Your task to perform on an android device: Turn off the flashlight Image 0: 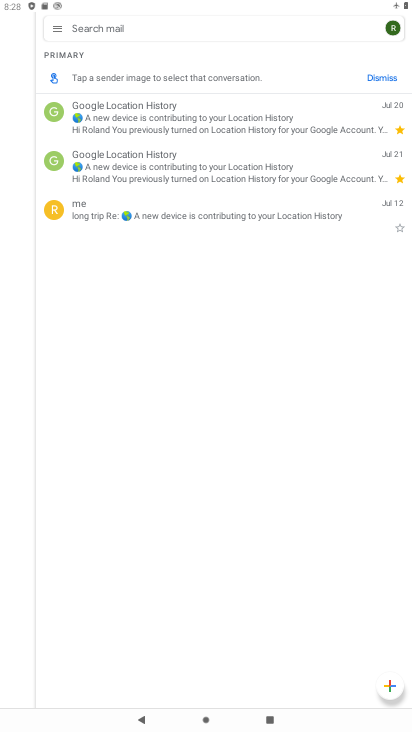
Step 0: drag from (247, 424) to (260, 240)
Your task to perform on an android device: Turn off the flashlight Image 1: 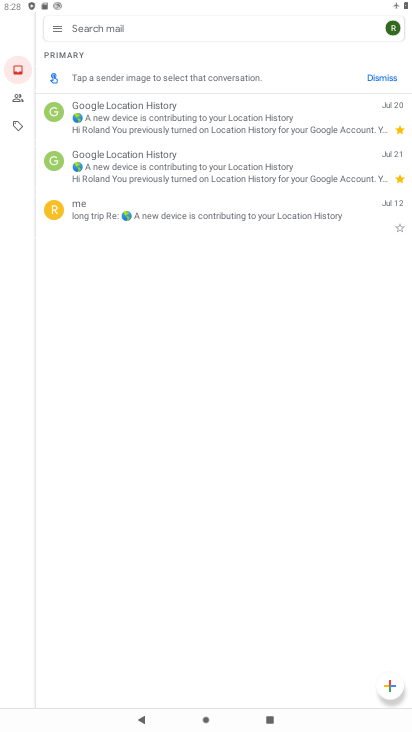
Step 1: press home button
Your task to perform on an android device: Turn off the flashlight Image 2: 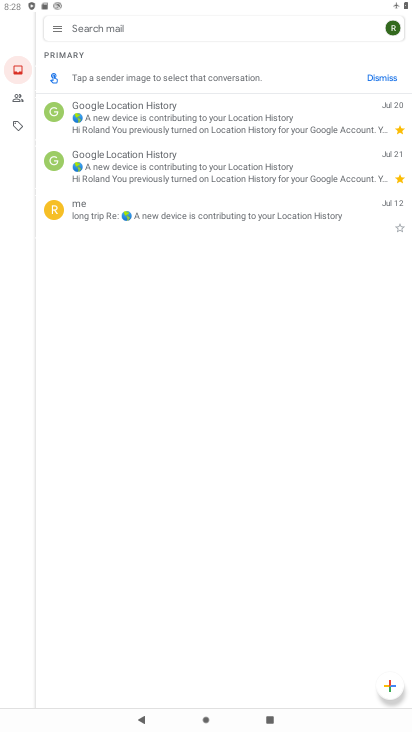
Step 2: press home button
Your task to perform on an android device: Turn off the flashlight Image 3: 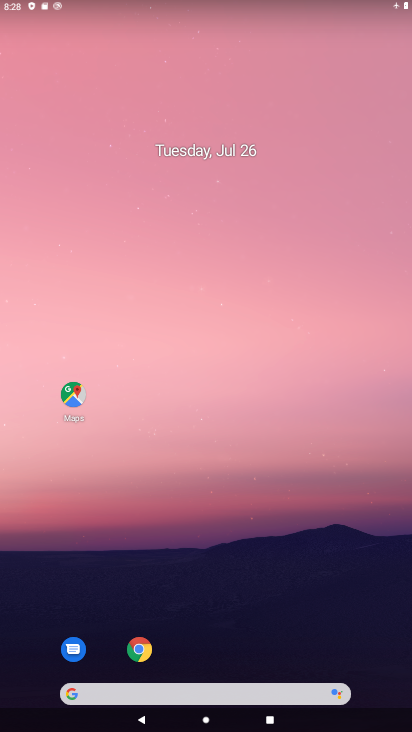
Step 3: drag from (236, 581) to (248, 212)
Your task to perform on an android device: Turn off the flashlight Image 4: 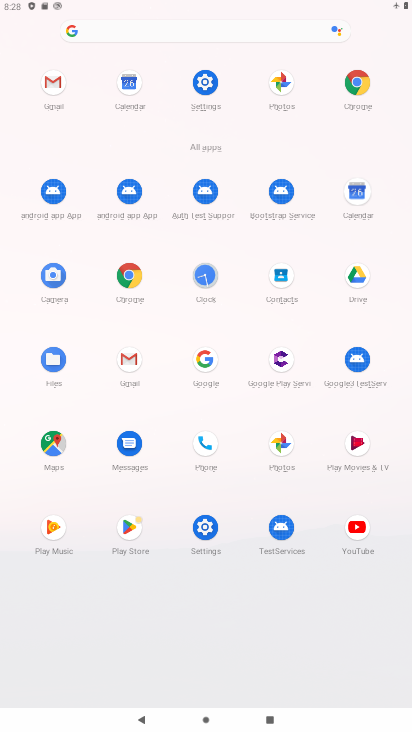
Step 4: click (207, 88)
Your task to perform on an android device: Turn off the flashlight Image 5: 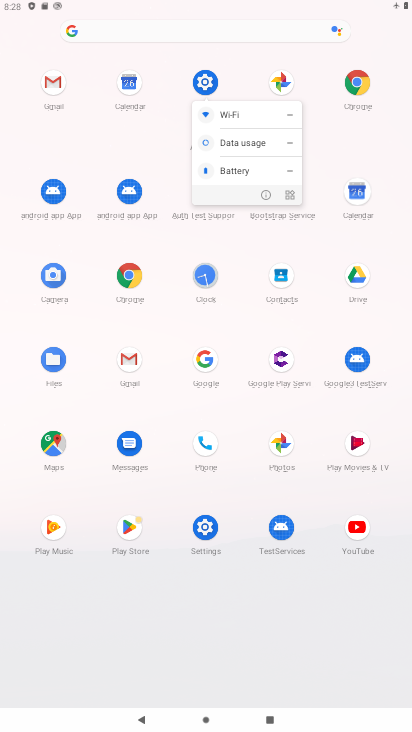
Step 5: click (263, 193)
Your task to perform on an android device: Turn off the flashlight Image 6: 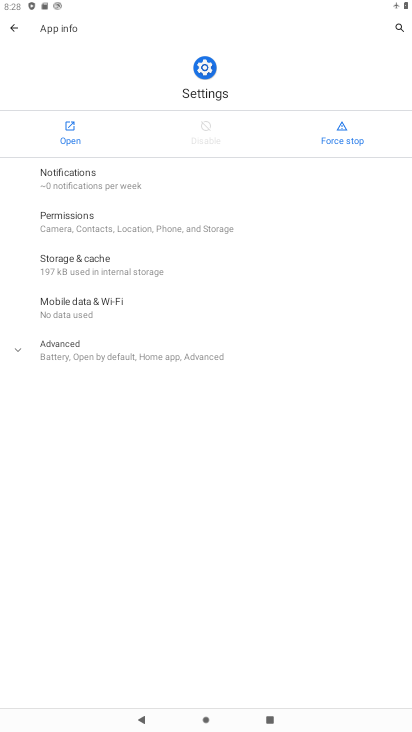
Step 6: click (56, 110)
Your task to perform on an android device: Turn off the flashlight Image 7: 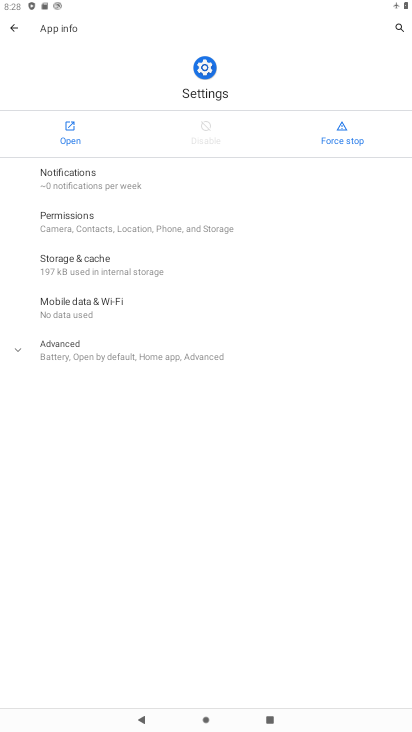
Step 7: click (69, 132)
Your task to perform on an android device: Turn off the flashlight Image 8: 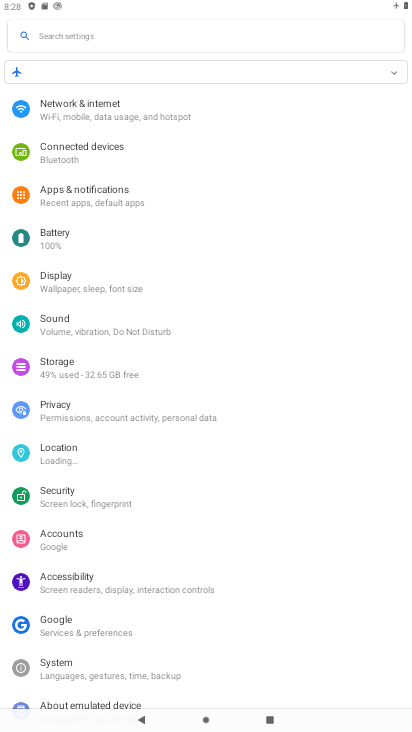
Step 8: click (110, 26)
Your task to perform on an android device: Turn off the flashlight Image 9: 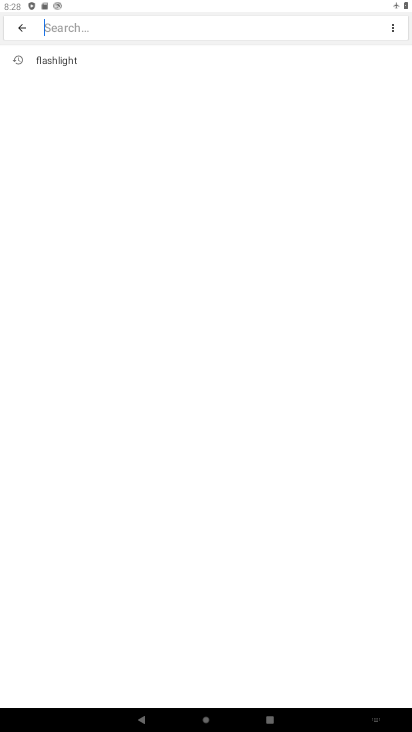
Step 9: type "flashlight"
Your task to perform on an android device: Turn off the flashlight Image 10: 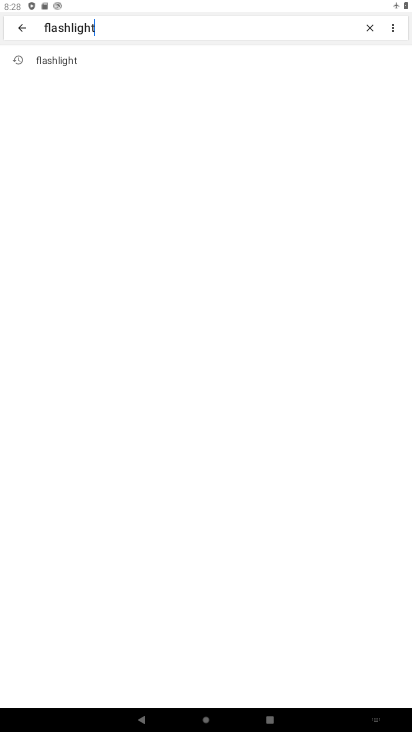
Step 10: type ""
Your task to perform on an android device: Turn off the flashlight Image 11: 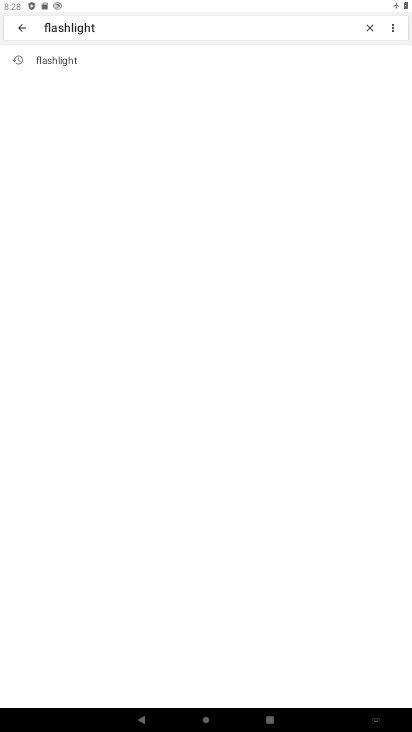
Step 11: click (48, 63)
Your task to perform on an android device: Turn off the flashlight Image 12: 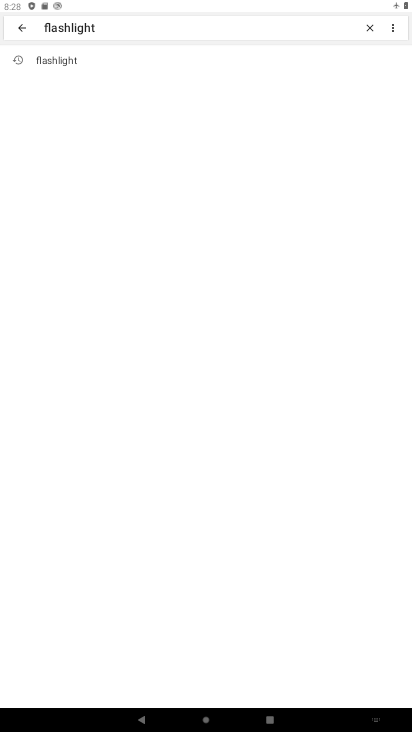
Step 12: click (48, 63)
Your task to perform on an android device: Turn off the flashlight Image 13: 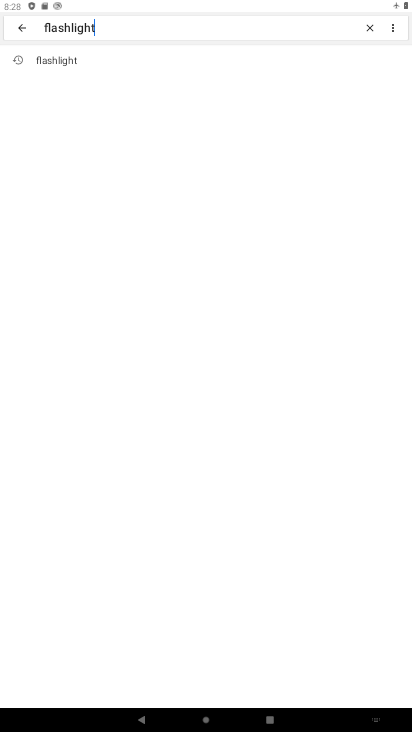
Step 13: click (50, 63)
Your task to perform on an android device: Turn off the flashlight Image 14: 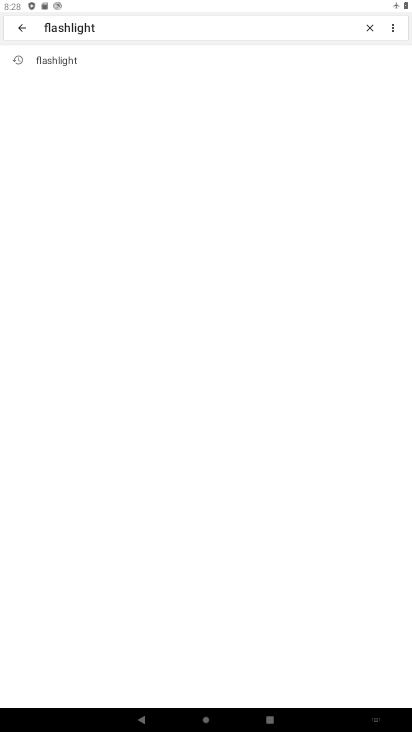
Step 14: click (53, 66)
Your task to perform on an android device: Turn off the flashlight Image 15: 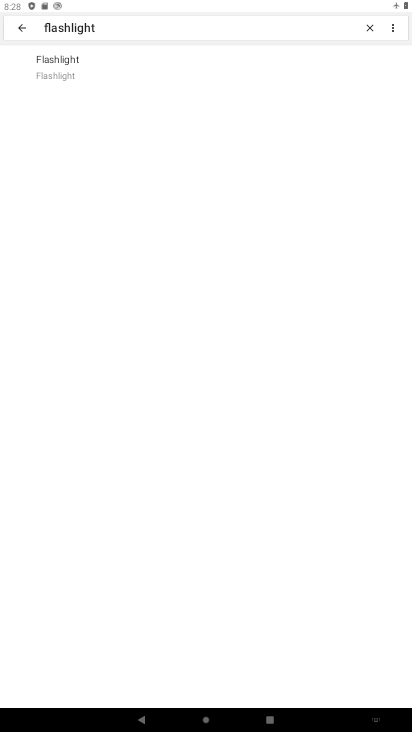
Step 15: task complete